Your task to perform on an android device: change text size in settings app Image 0: 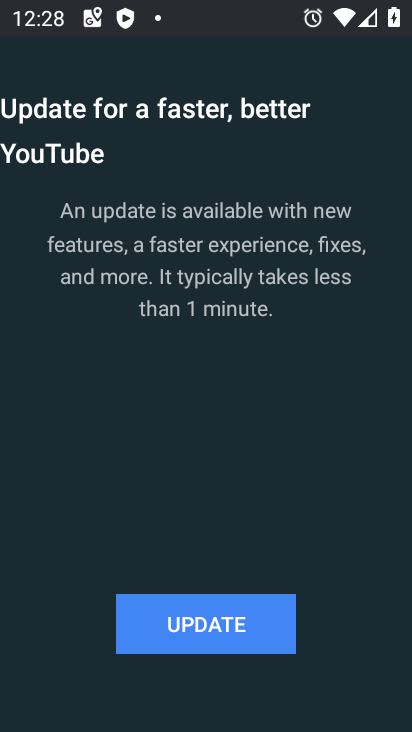
Step 0: press home button
Your task to perform on an android device: change text size in settings app Image 1: 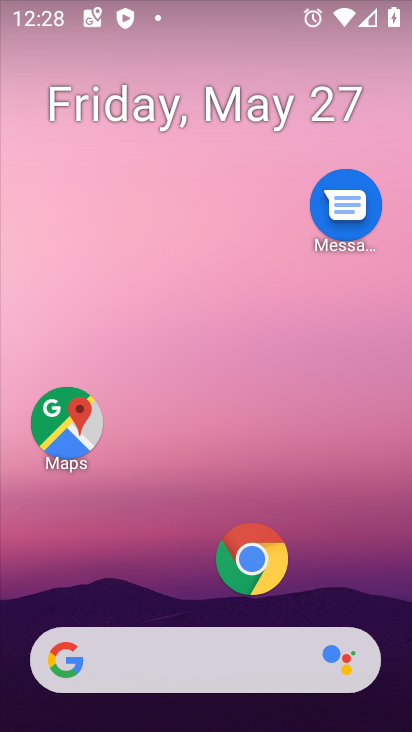
Step 1: drag from (168, 654) to (256, 29)
Your task to perform on an android device: change text size in settings app Image 2: 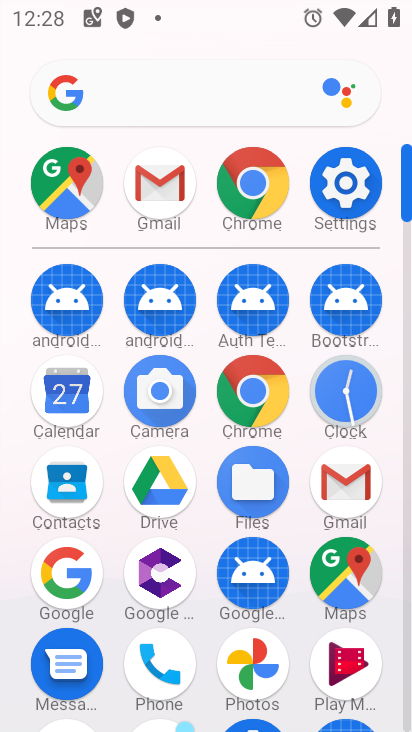
Step 2: click (347, 216)
Your task to perform on an android device: change text size in settings app Image 3: 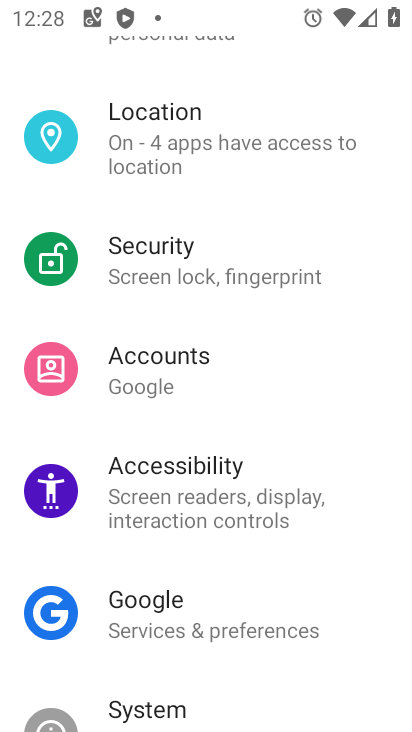
Step 3: drag from (224, 266) to (218, 575)
Your task to perform on an android device: change text size in settings app Image 4: 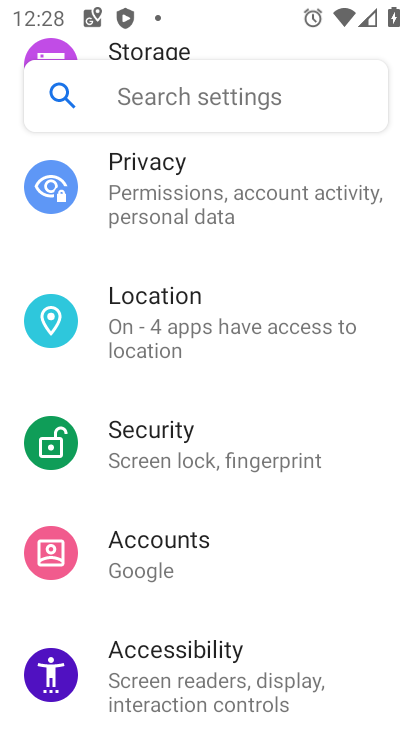
Step 4: drag from (239, 269) to (190, 656)
Your task to perform on an android device: change text size in settings app Image 5: 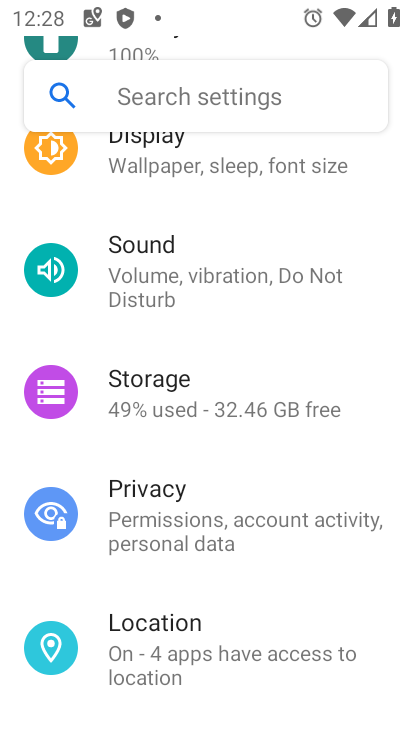
Step 5: drag from (151, 311) to (143, 670)
Your task to perform on an android device: change text size in settings app Image 6: 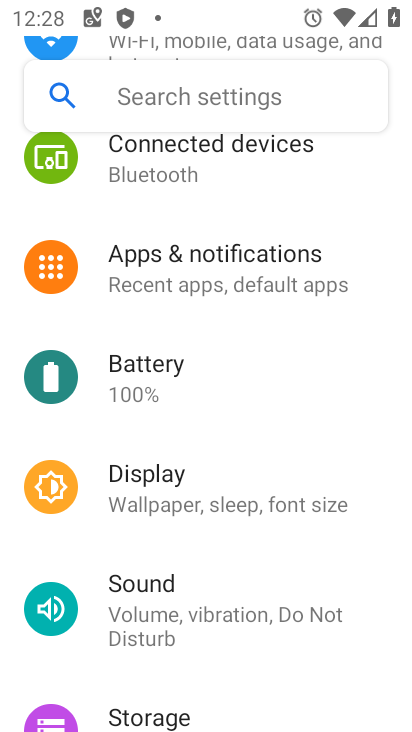
Step 6: drag from (164, 246) to (137, 544)
Your task to perform on an android device: change text size in settings app Image 7: 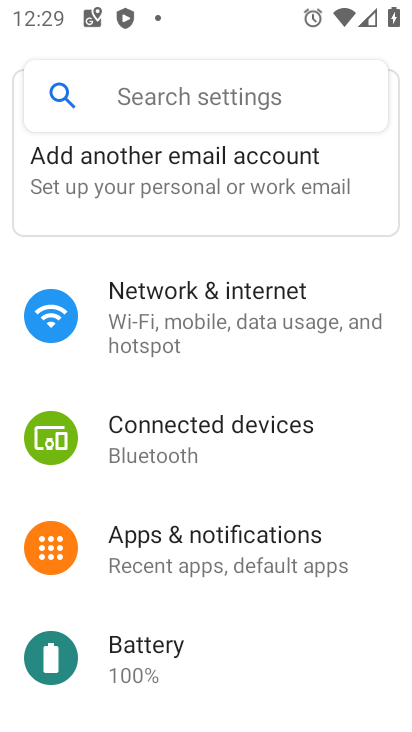
Step 7: drag from (197, 589) to (205, 308)
Your task to perform on an android device: change text size in settings app Image 8: 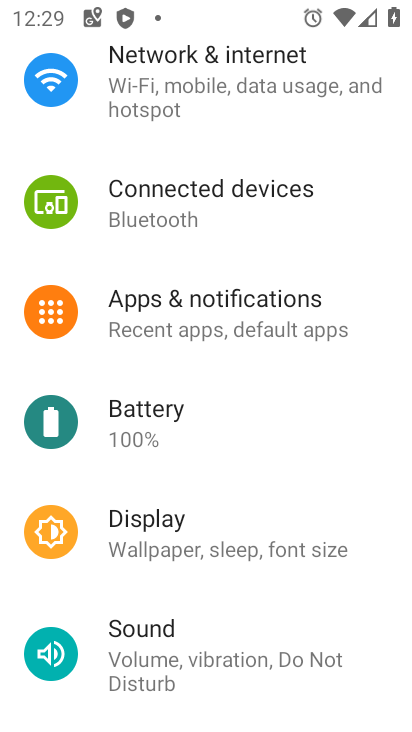
Step 8: click (202, 544)
Your task to perform on an android device: change text size in settings app Image 9: 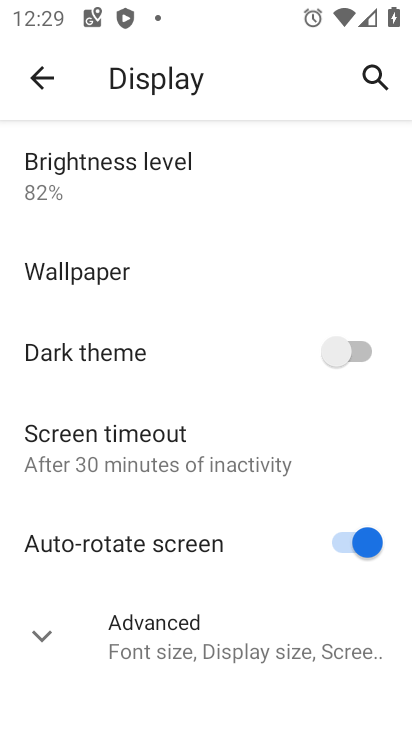
Step 9: click (157, 623)
Your task to perform on an android device: change text size in settings app Image 10: 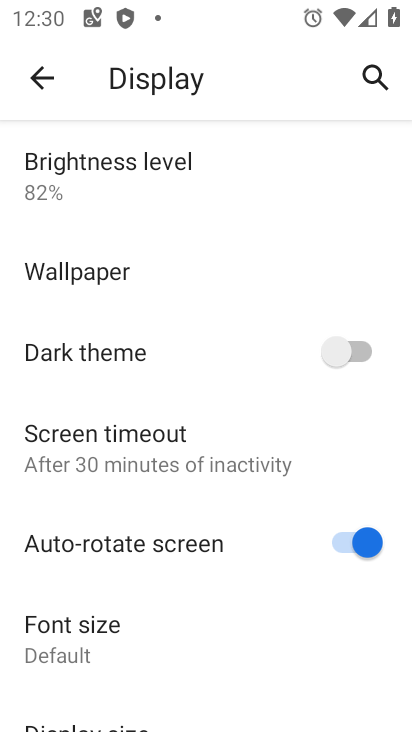
Step 10: click (160, 615)
Your task to perform on an android device: change text size in settings app Image 11: 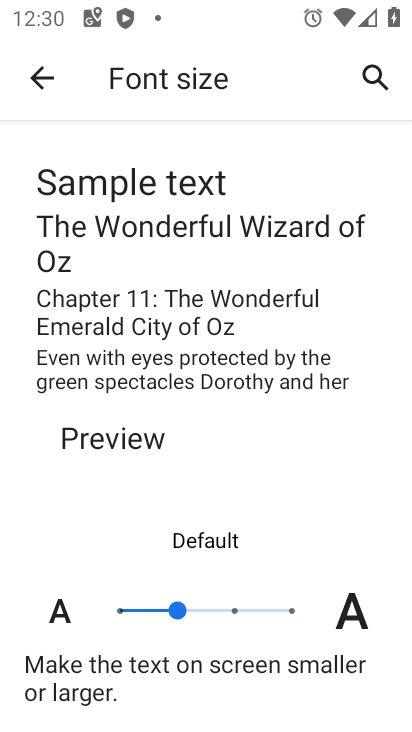
Step 11: click (226, 609)
Your task to perform on an android device: change text size in settings app Image 12: 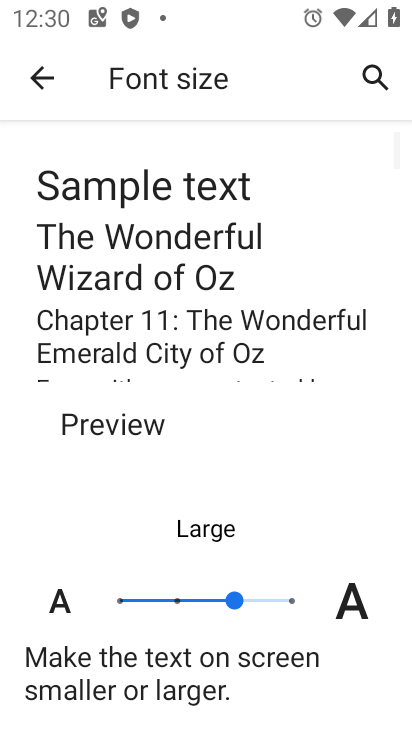
Step 12: task complete